Your task to perform on an android device: Open network settings Image 0: 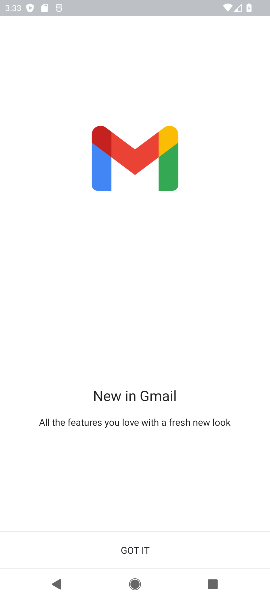
Step 0: press home button
Your task to perform on an android device: Open network settings Image 1: 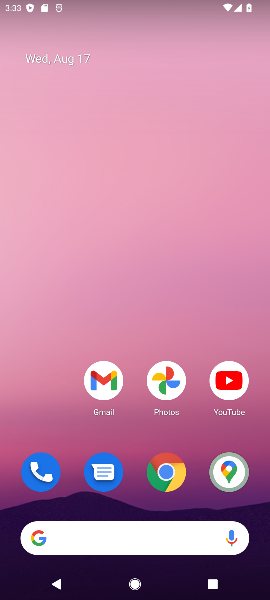
Step 1: drag from (141, 430) to (147, 54)
Your task to perform on an android device: Open network settings Image 2: 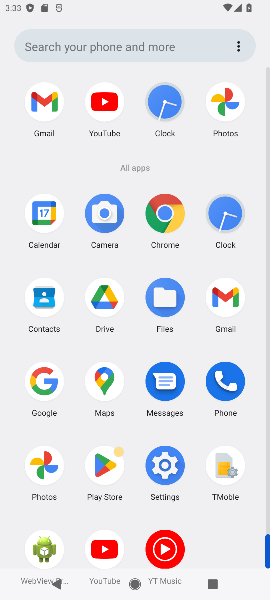
Step 2: click (153, 459)
Your task to perform on an android device: Open network settings Image 3: 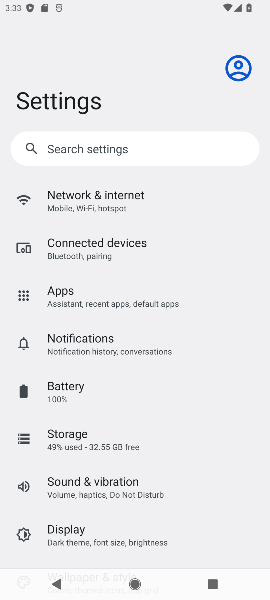
Step 3: click (97, 195)
Your task to perform on an android device: Open network settings Image 4: 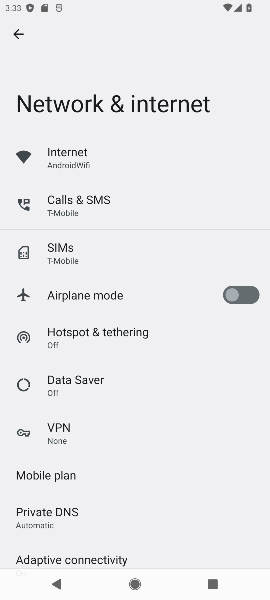
Step 4: click (75, 166)
Your task to perform on an android device: Open network settings Image 5: 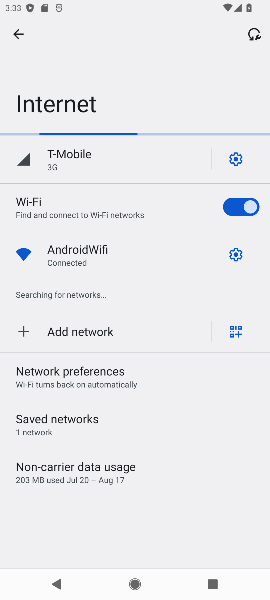
Step 5: task complete